Your task to perform on an android device: Open Reddit.com Image 0: 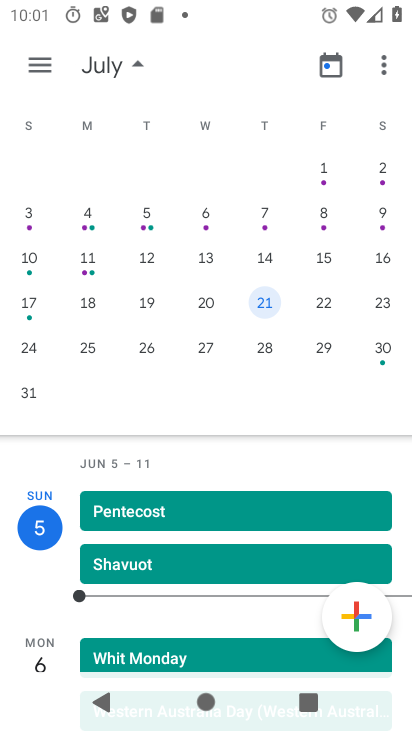
Step 0: press home button
Your task to perform on an android device: Open Reddit.com Image 1: 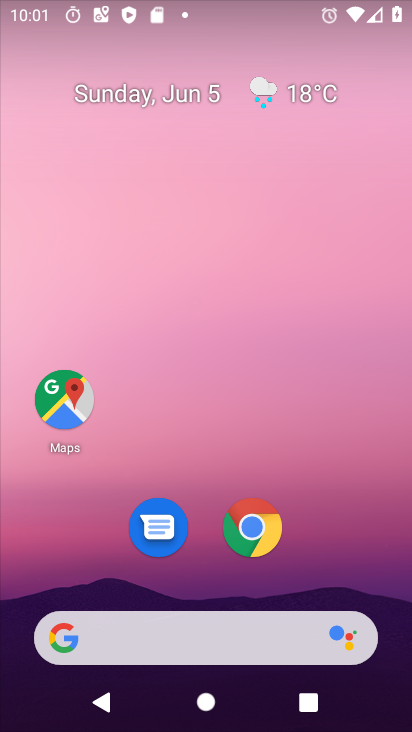
Step 1: drag from (346, 581) to (343, 113)
Your task to perform on an android device: Open Reddit.com Image 2: 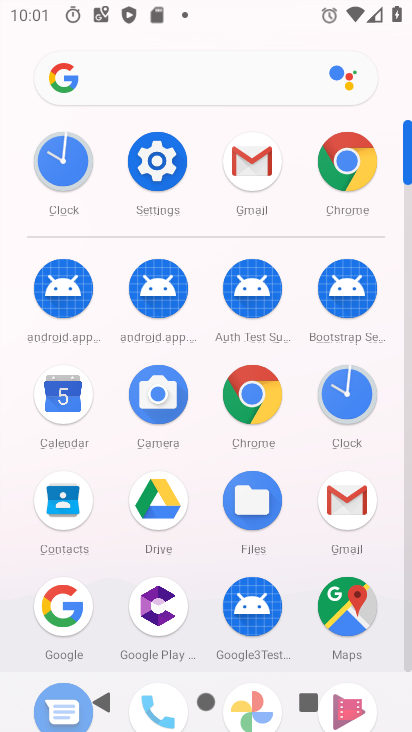
Step 2: click (236, 507)
Your task to perform on an android device: Open Reddit.com Image 3: 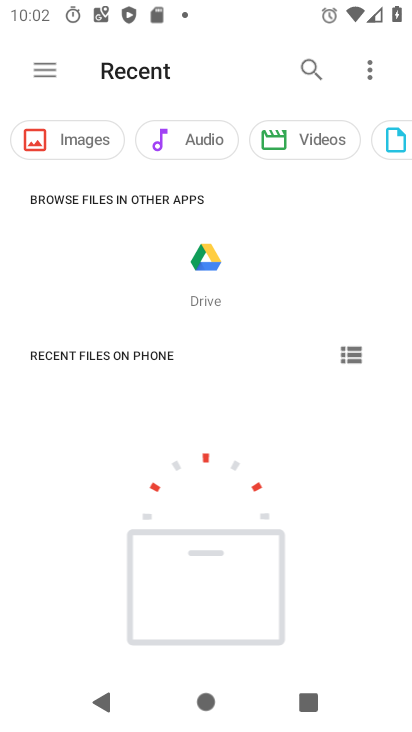
Step 3: press home button
Your task to perform on an android device: Open Reddit.com Image 4: 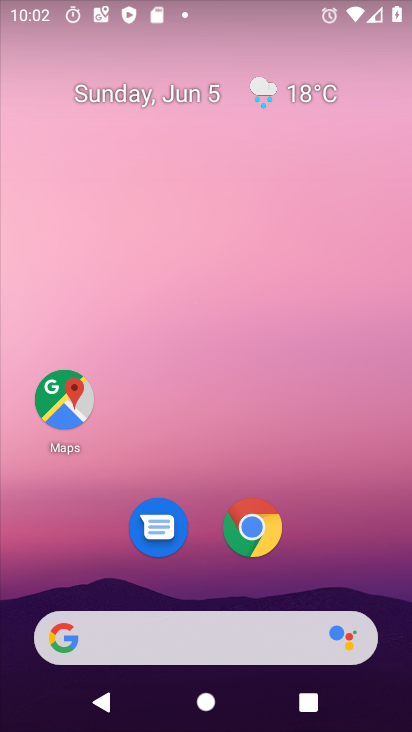
Step 4: click (269, 542)
Your task to perform on an android device: Open Reddit.com Image 5: 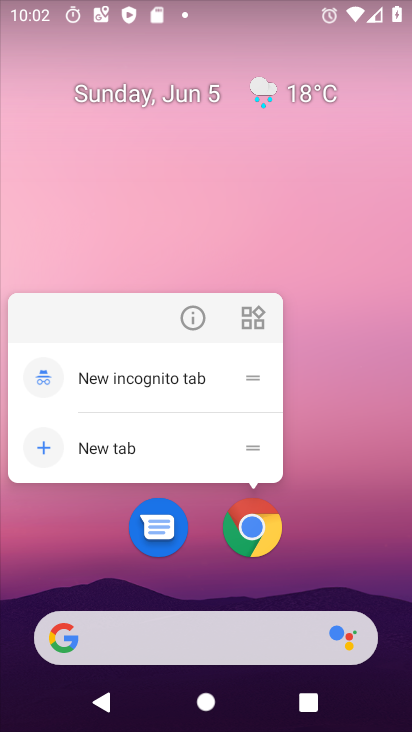
Step 5: click (269, 540)
Your task to perform on an android device: Open Reddit.com Image 6: 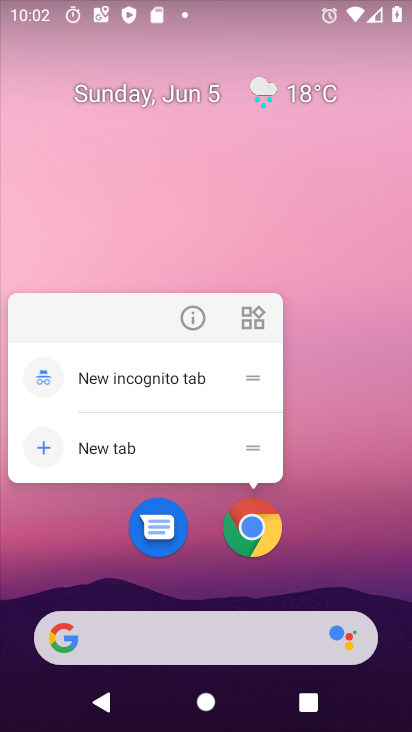
Step 6: click (269, 539)
Your task to perform on an android device: Open Reddit.com Image 7: 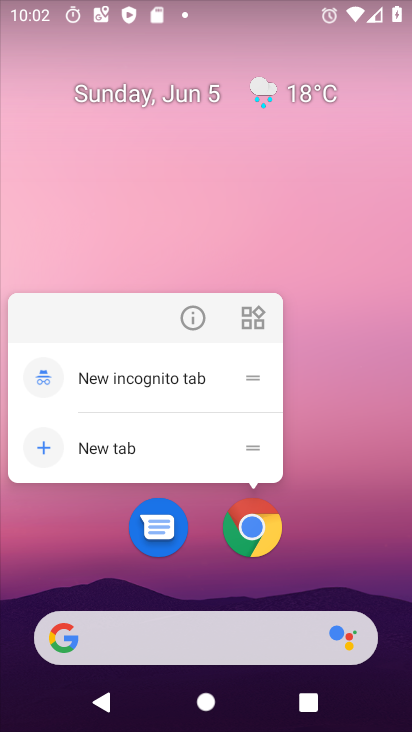
Step 7: click (312, 530)
Your task to perform on an android device: Open Reddit.com Image 8: 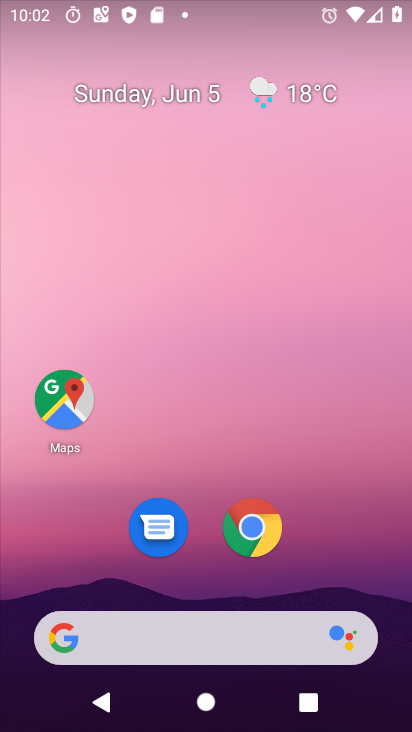
Step 8: drag from (338, 543) to (375, 18)
Your task to perform on an android device: Open Reddit.com Image 9: 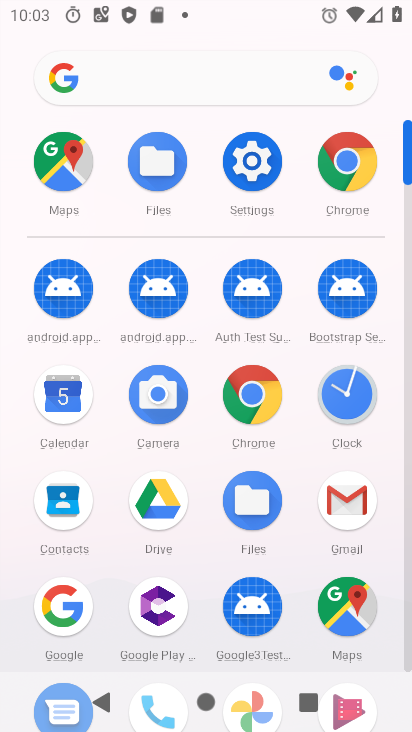
Step 9: drag from (328, 577) to (323, 89)
Your task to perform on an android device: Open Reddit.com Image 10: 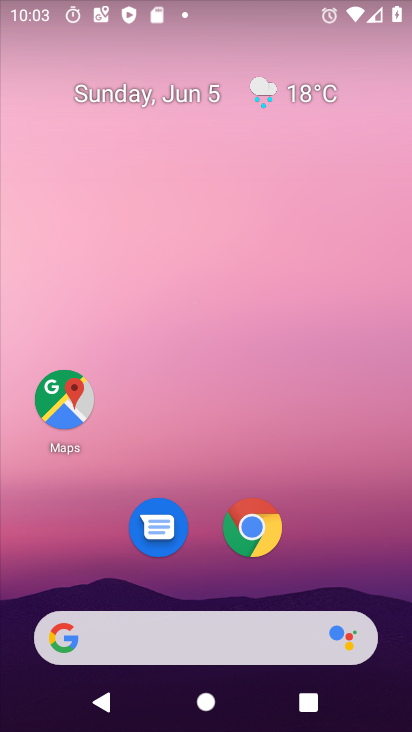
Step 10: click (353, 159)
Your task to perform on an android device: Open Reddit.com Image 11: 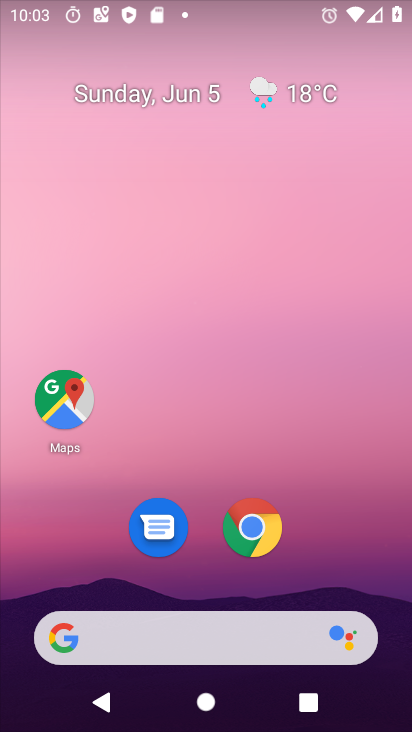
Step 11: drag from (320, 574) to (349, 70)
Your task to perform on an android device: Open Reddit.com Image 12: 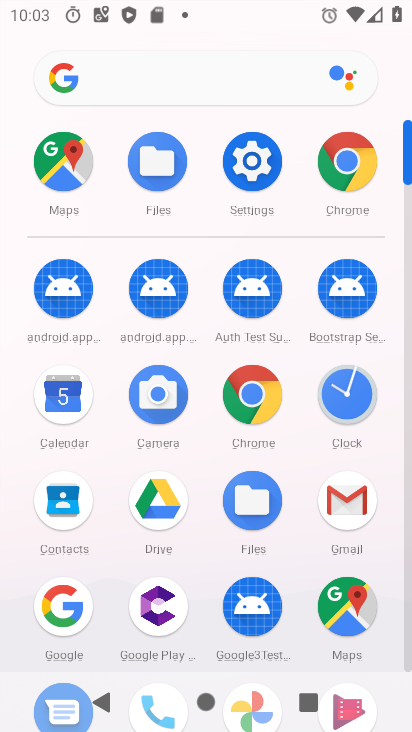
Step 12: click (337, 169)
Your task to perform on an android device: Open Reddit.com Image 13: 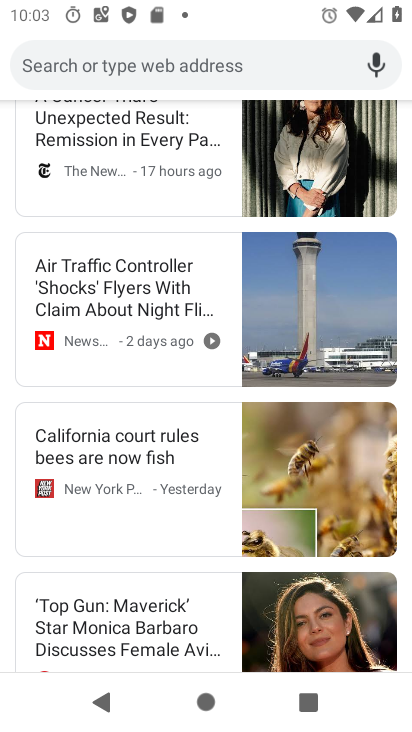
Step 13: drag from (168, 152) to (265, 666)
Your task to perform on an android device: Open Reddit.com Image 14: 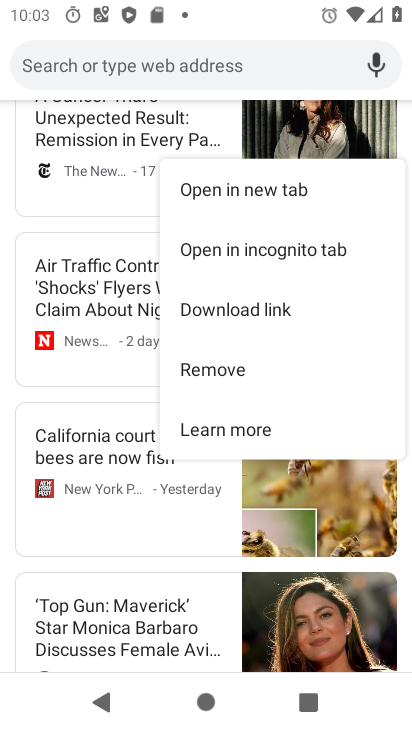
Step 14: drag from (88, 171) to (81, 607)
Your task to perform on an android device: Open Reddit.com Image 15: 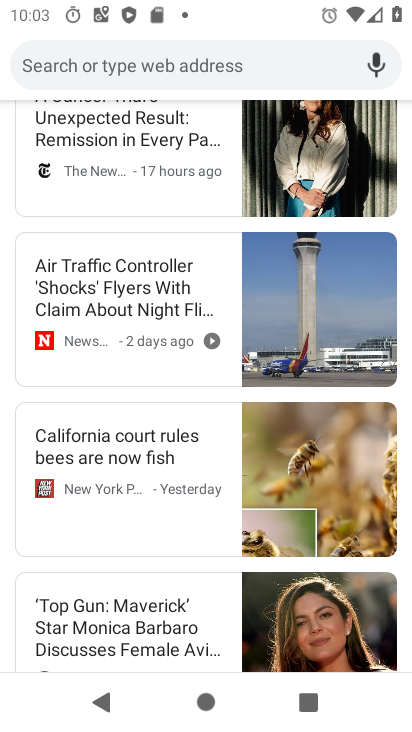
Step 15: drag from (144, 216) to (152, 616)
Your task to perform on an android device: Open Reddit.com Image 16: 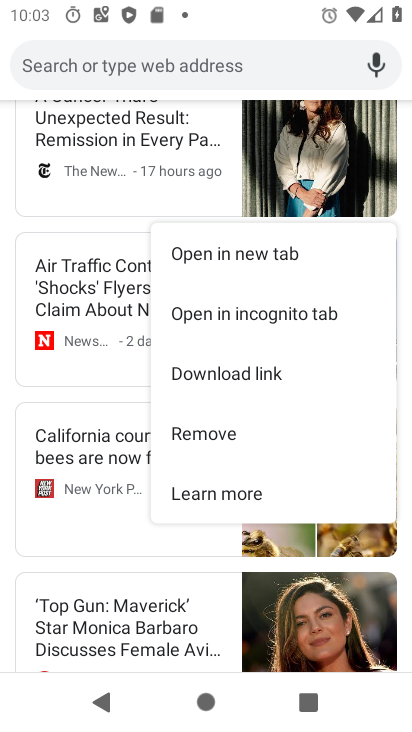
Step 16: click (401, 212)
Your task to perform on an android device: Open Reddit.com Image 17: 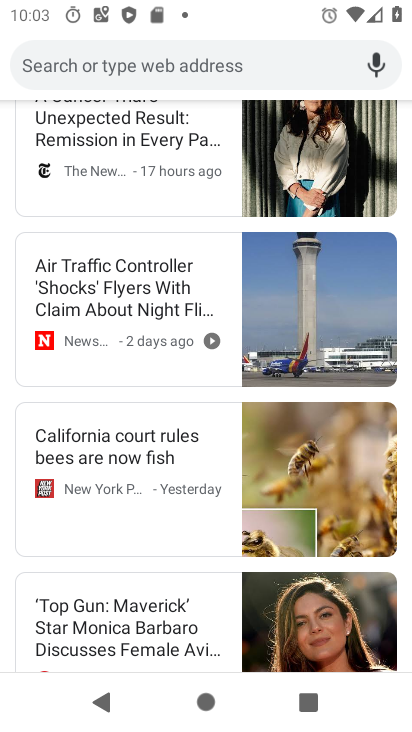
Step 17: drag from (13, 164) to (43, 472)
Your task to perform on an android device: Open Reddit.com Image 18: 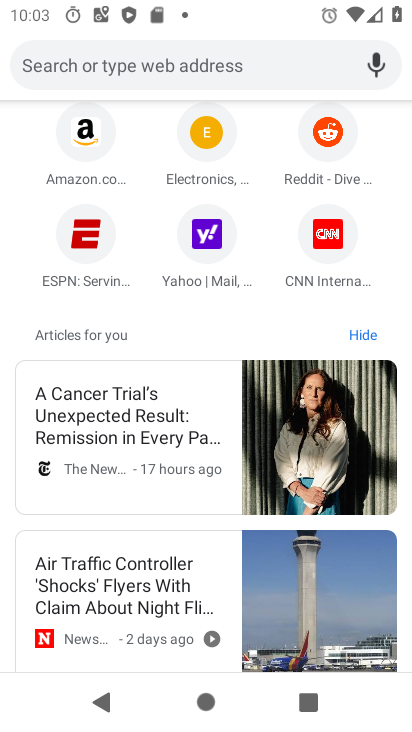
Step 18: click (223, 51)
Your task to perform on an android device: Open Reddit.com Image 19: 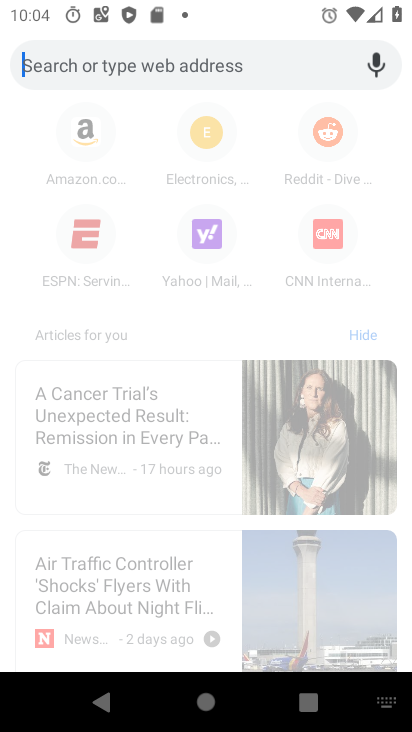
Step 19: type "reddit"
Your task to perform on an android device: Open Reddit.com Image 20: 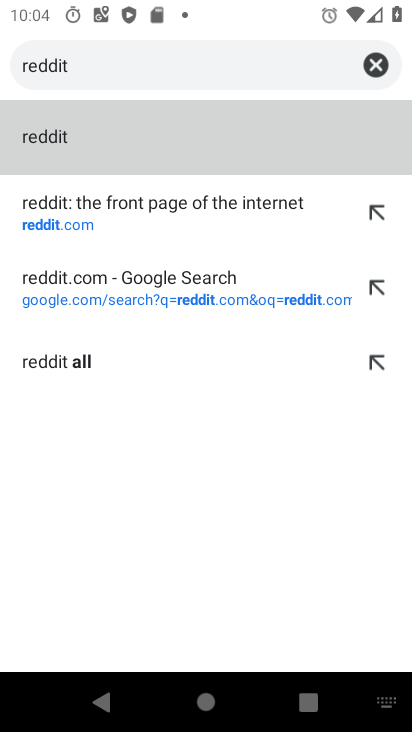
Step 20: click (69, 224)
Your task to perform on an android device: Open Reddit.com Image 21: 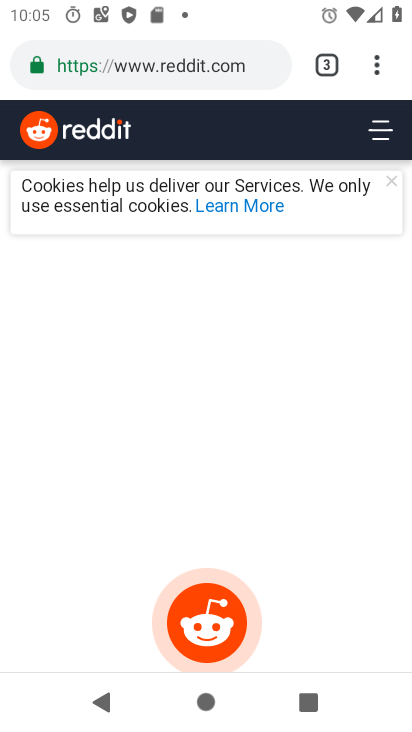
Step 21: task complete